Your task to perform on an android device: toggle location history Image 0: 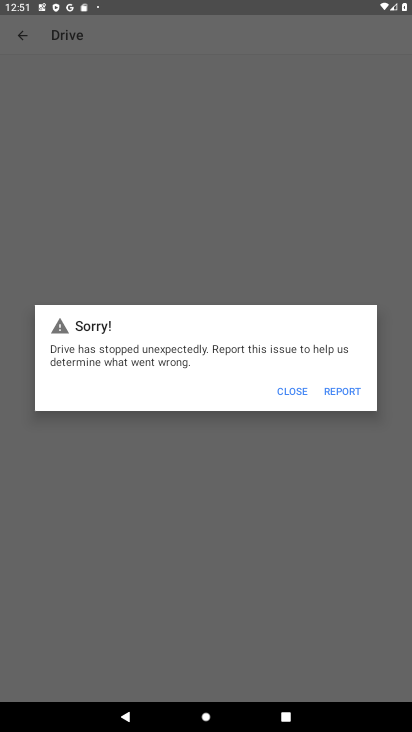
Step 0: press home button
Your task to perform on an android device: toggle location history Image 1: 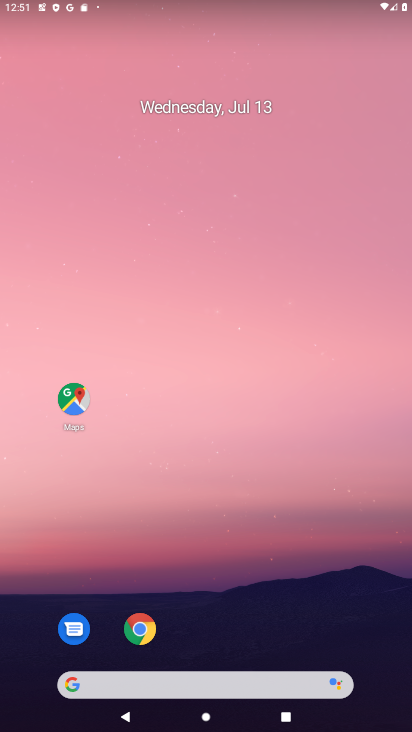
Step 1: drag from (235, 596) to (293, 224)
Your task to perform on an android device: toggle location history Image 2: 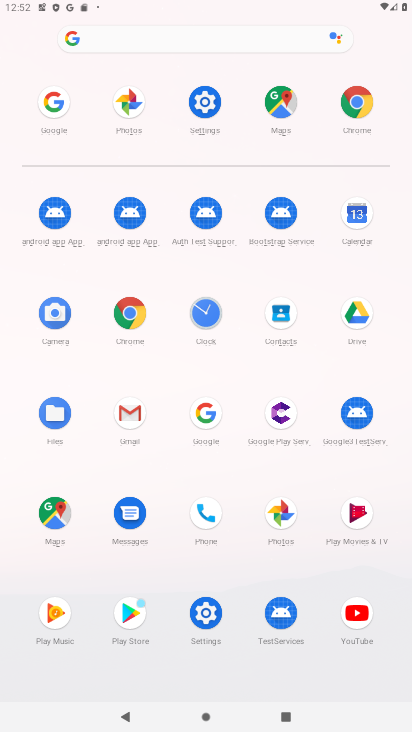
Step 2: click (203, 98)
Your task to perform on an android device: toggle location history Image 3: 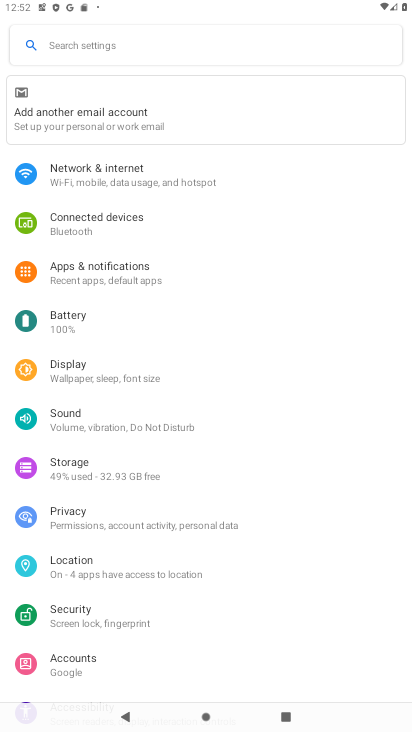
Step 3: click (101, 560)
Your task to perform on an android device: toggle location history Image 4: 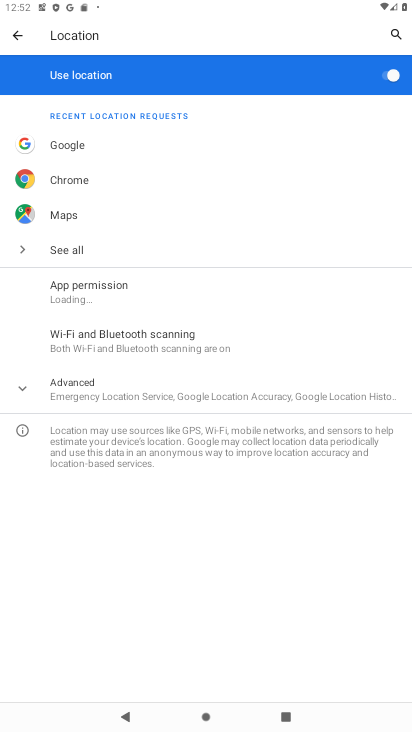
Step 4: click (117, 390)
Your task to perform on an android device: toggle location history Image 5: 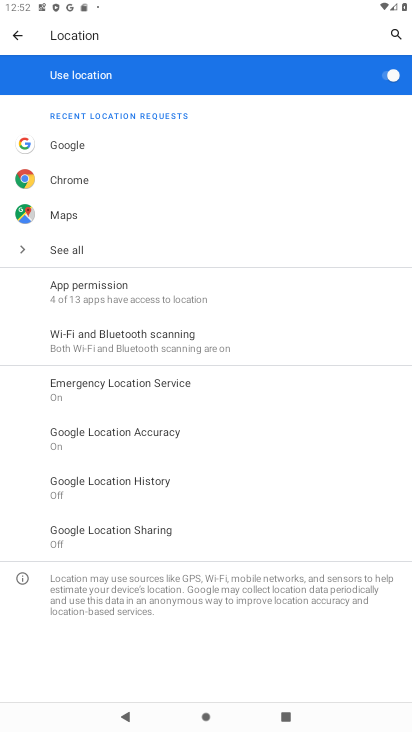
Step 5: click (132, 479)
Your task to perform on an android device: toggle location history Image 6: 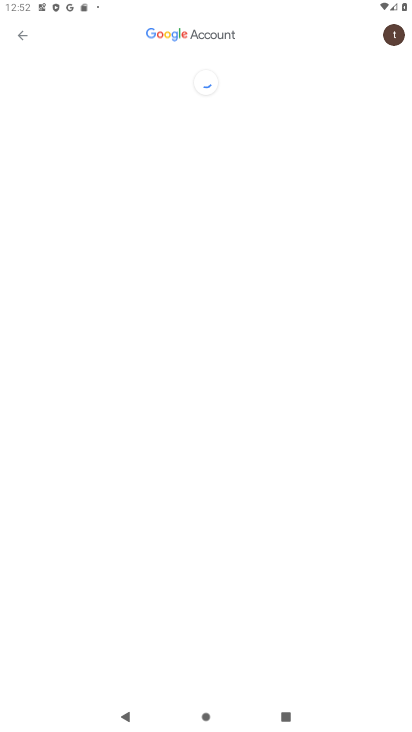
Step 6: click (195, 275)
Your task to perform on an android device: toggle location history Image 7: 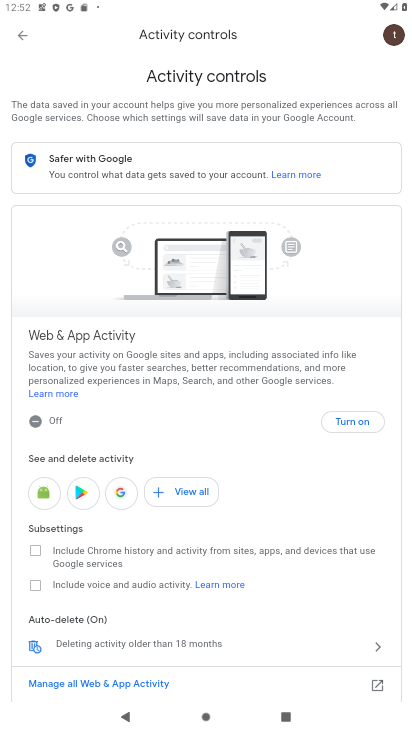
Step 7: click (352, 420)
Your task to perform on an android device: toggle location history Image 8: 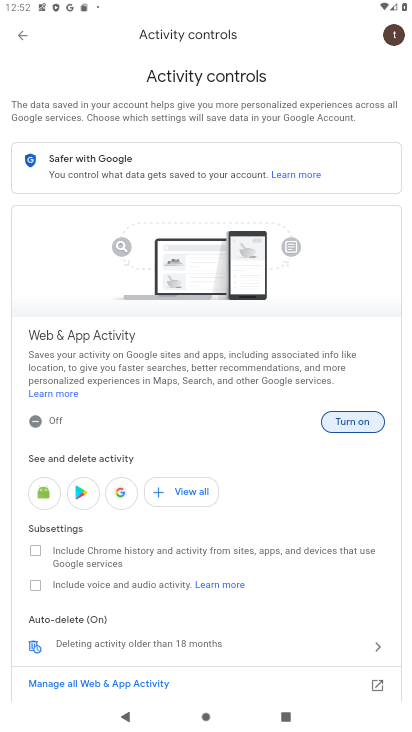
Step 8: task complete